Your task to perform on an android device: change the clock display to digital Image 0: 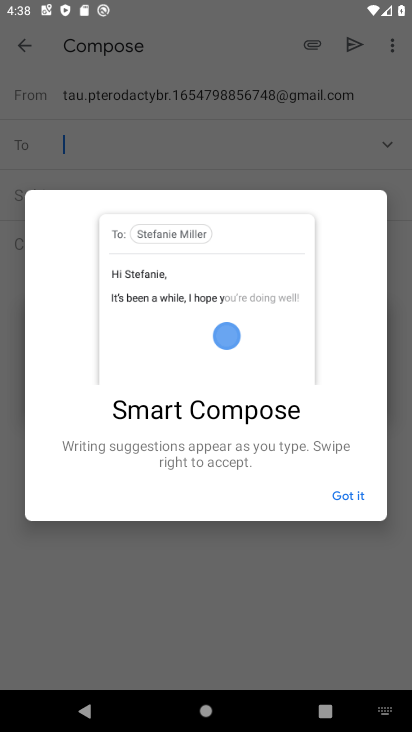
Step 0: press home button
Your task to perform on an android device: change the clock display to digital Image 1: 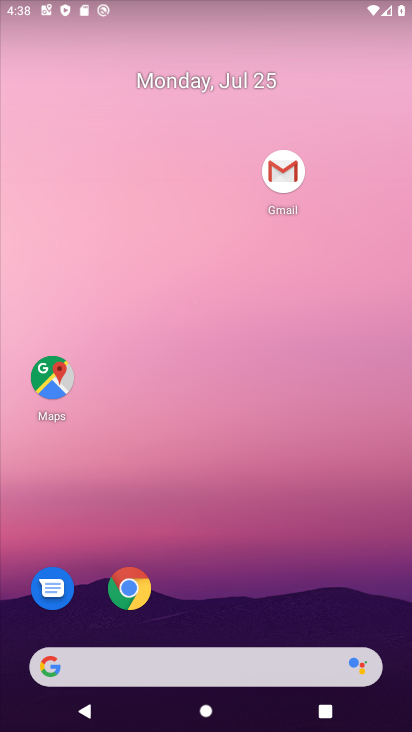
Step 1: click (193, 48)
Your task to perform on an android device: change the clock display to digital Image 2: 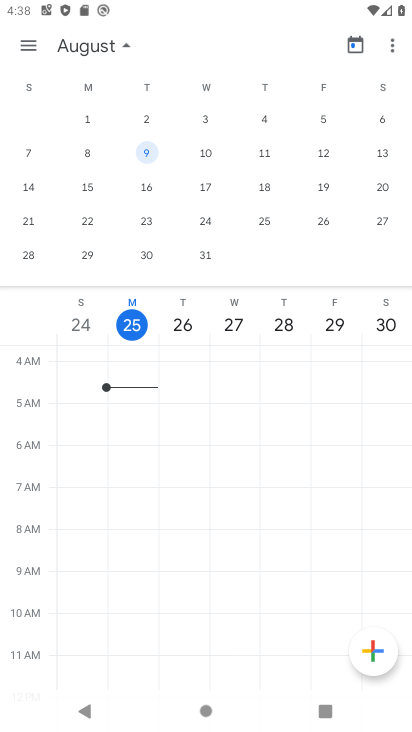
Step 2: press home button
Your task to perform on an android device: change the clock display to digital Image 3: 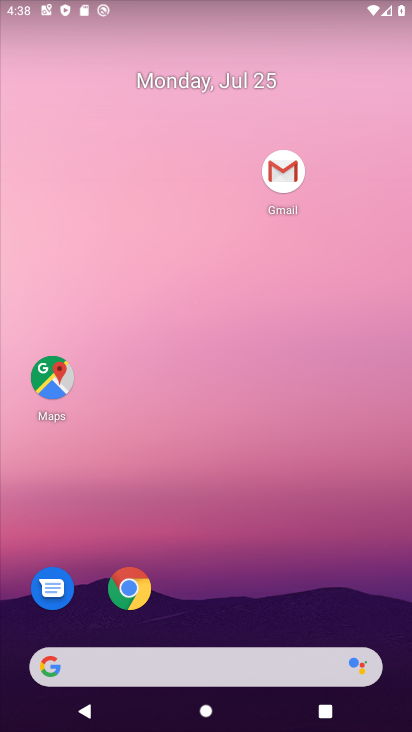
Step 3: click (221, 91)
Your task to perform on an android device: change the clock display to digital Image 4: 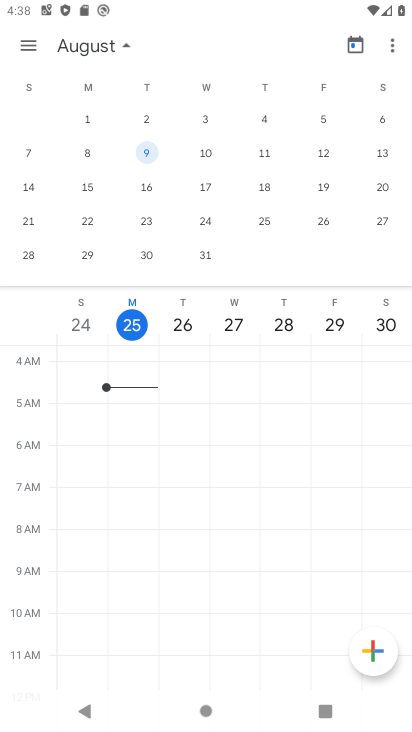
Step 4: press home button
Your task to perform on an android device: change the clock display to digital Image 5: 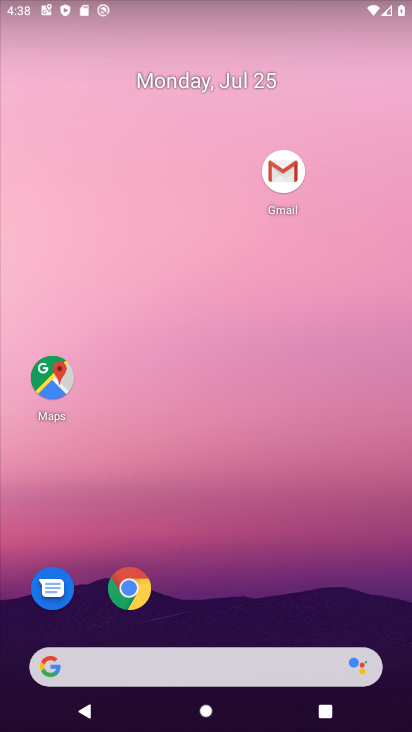
Step 5: drag from (302, 561) to (177, 23)
Your task to perform on an android device: change the clock display to digital Image 6: 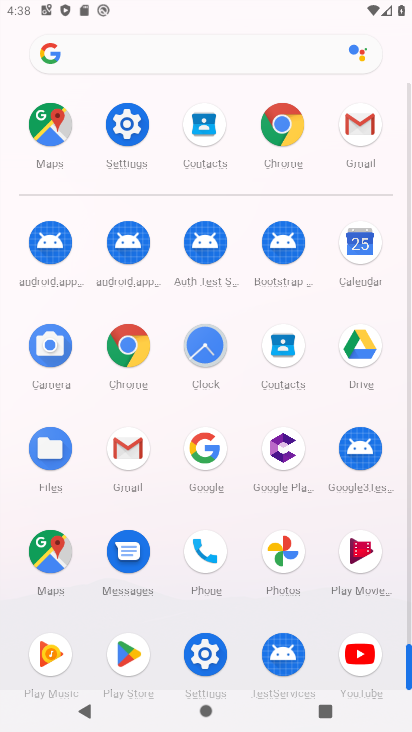
Step 6: click (211, 352)
Your task to perform on an android device: change the clock display to digital Image 7: 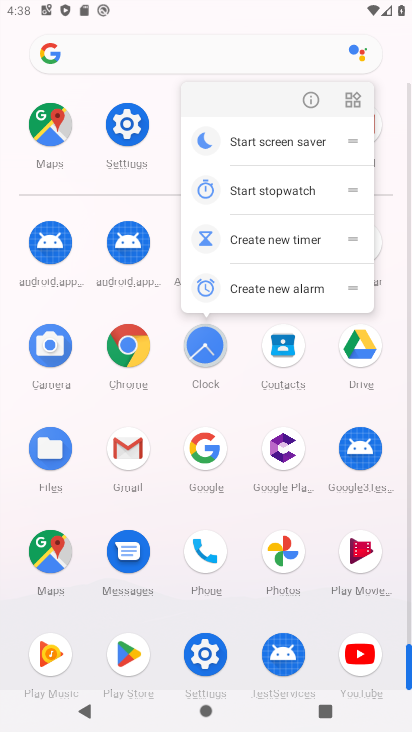
Step 7: click (212, 343)
Your task to perform on an android device: change the clock display to digital Image 8: 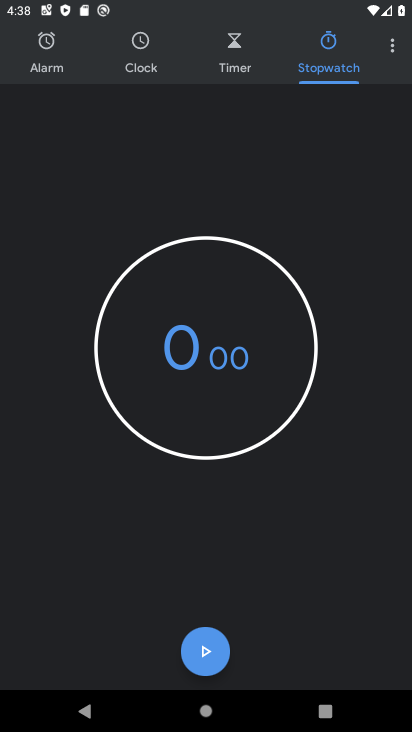
Step 8: click (393, 46)
Your task to perform on an android device: change the clock display to digital Image 9: 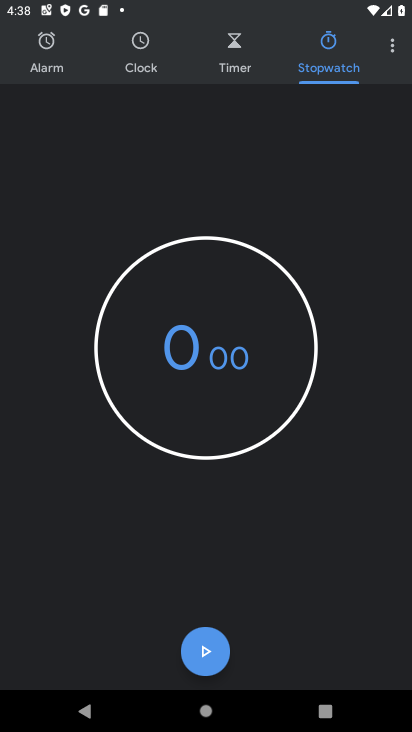
Step 9: click (398, 42)
Your task to perform on an android device: change the clock display to digital Image 10: 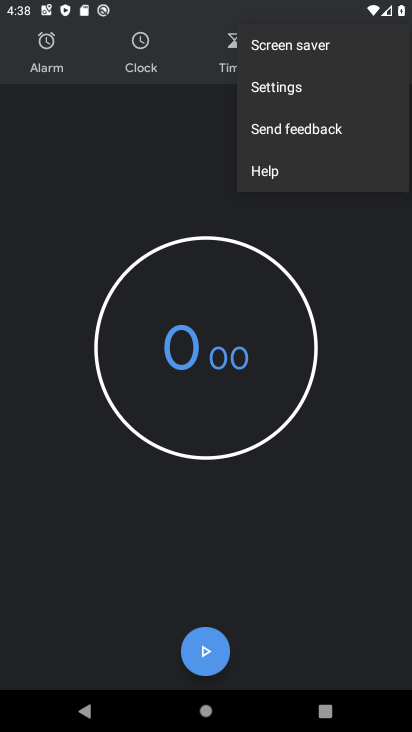
Step 10: click (303, 94)
Your task to perform on an android device: change the clock display to digital Image 11: 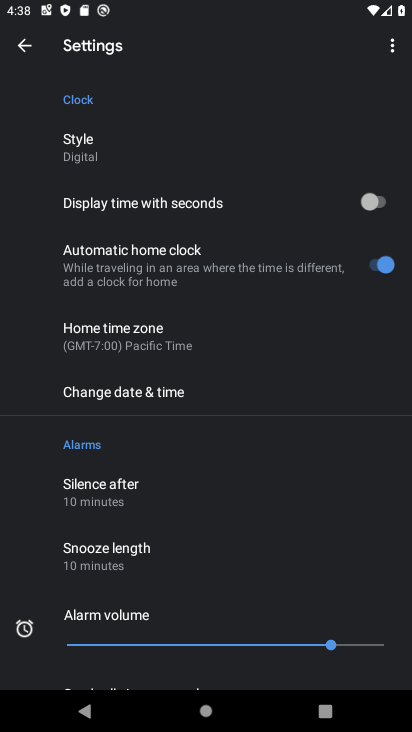
Step 11: task complete